Your task to perform on an android device: delete a single message in the gmail app Image 0: 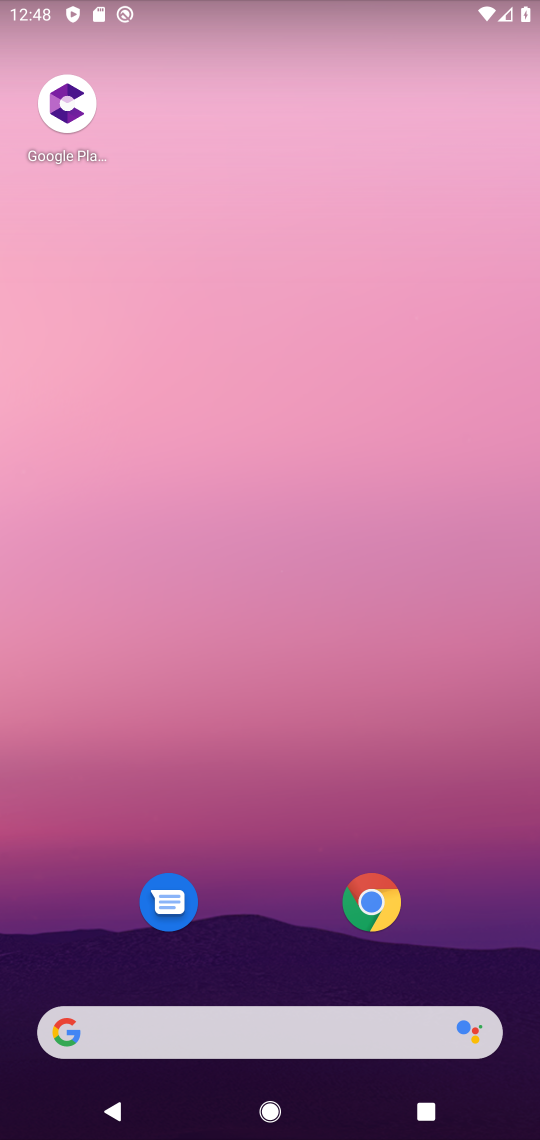
Step 0: drag from (236, 1016) to (279, 262)
Your task to perform on an android device: delete a single message in the gmail app Image 1: 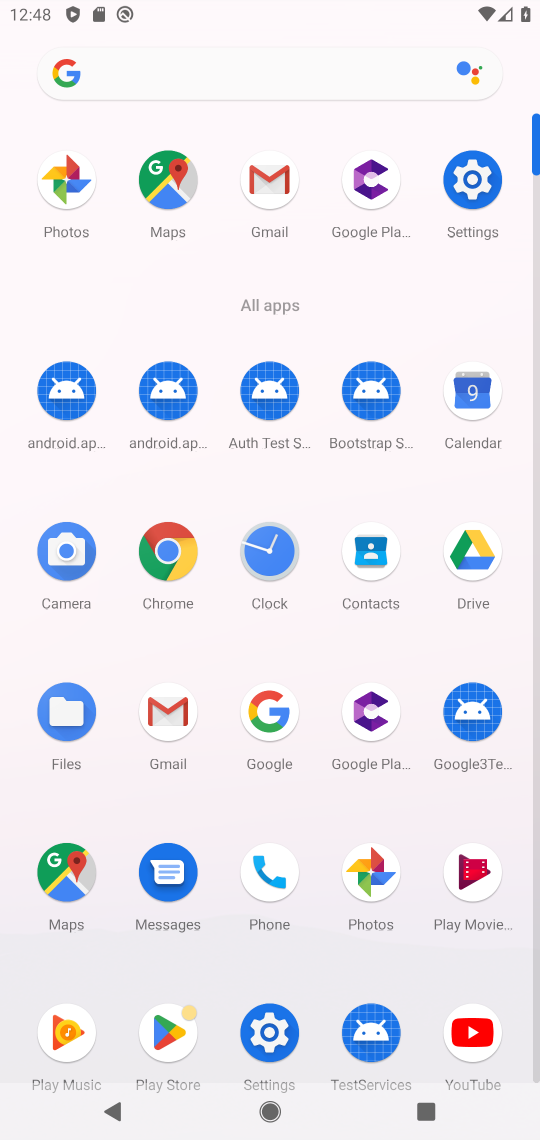
Step 1: click (154, 720)
Your task to perform on an android device: delete a single message in the gmail app Image 2: 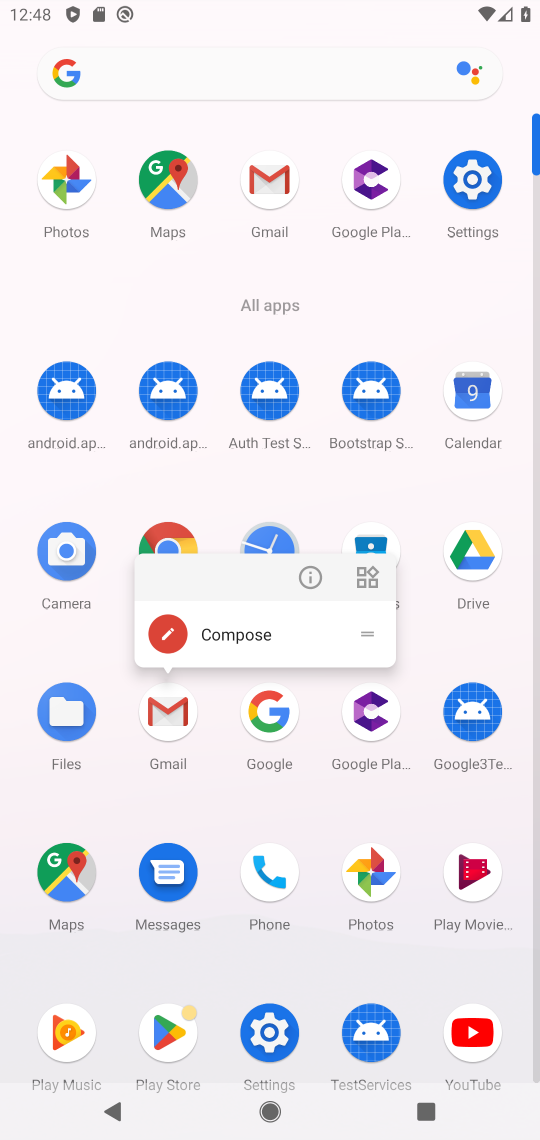
Step 2: click (186, 721)
Your task to perform on an android device: delete a single message in the gmail app Image 3: 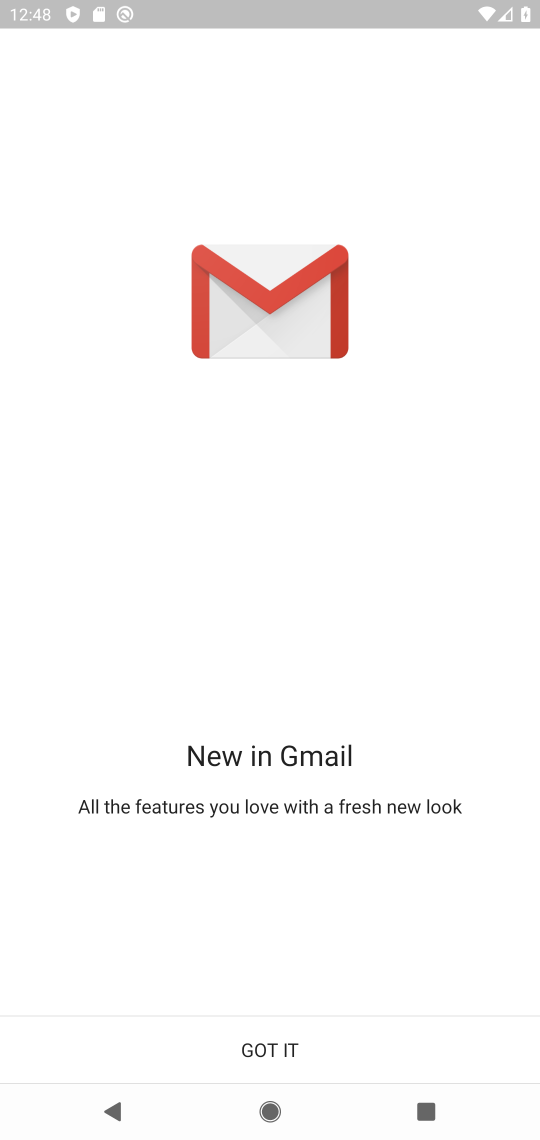
Step 3: click (260, 1065)
Your task to perform on an android device: delete a single message in the gmail app Image 4: 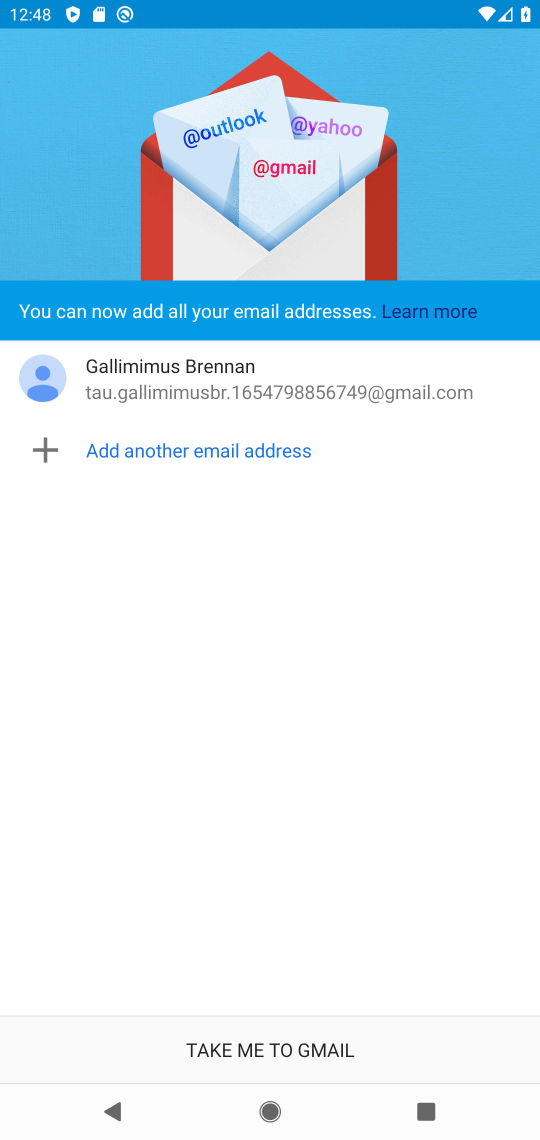
Step 4: click (247, 1047)
Your task to perform on an android device: delete a single message in the gmail app Image 5: 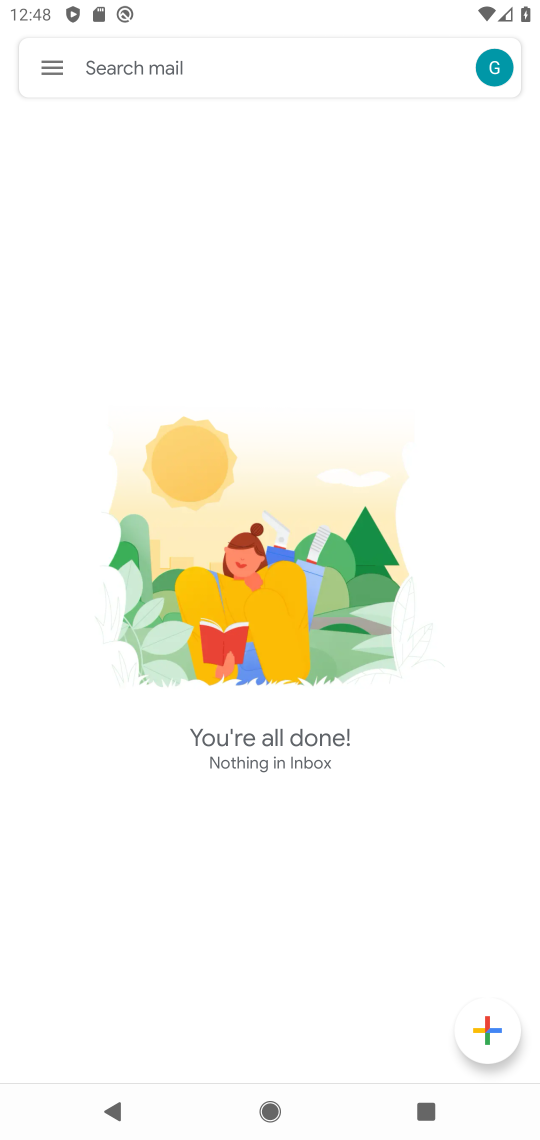
Step 5: task complete